Your task to perform on an android device: Do I have any events this weekend? Image 0: 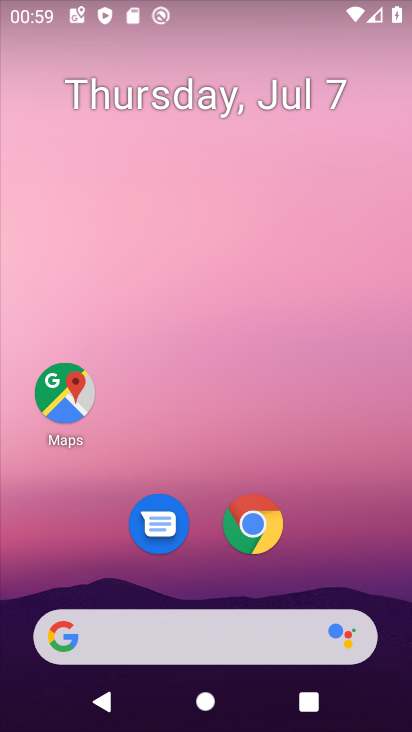
Step 0: drag from (262, 493) to (340, 37)
Your task to perform on an android device: Do I have any events this weekend? Image 1: 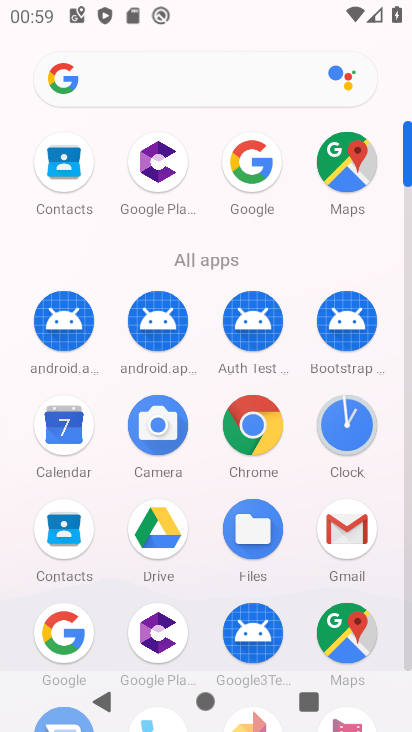
Step 1: click (56, 443)
Your task to perform on an android device: Do I have any events this weekend? Image 2: 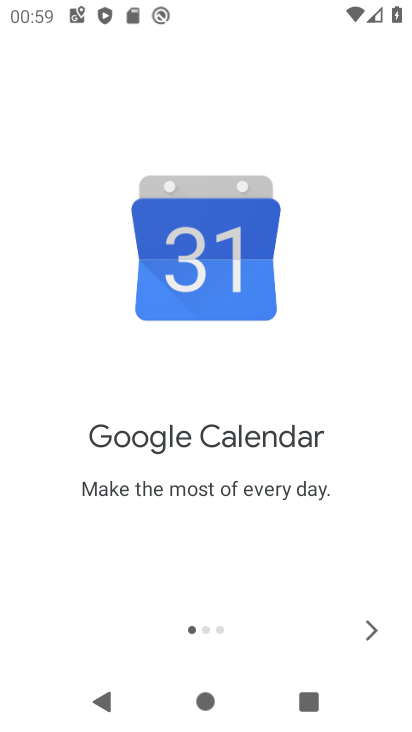
Step 2: click (363, 631)
Your task to perform on an android device: Do I have any events this weekend? Image 3: 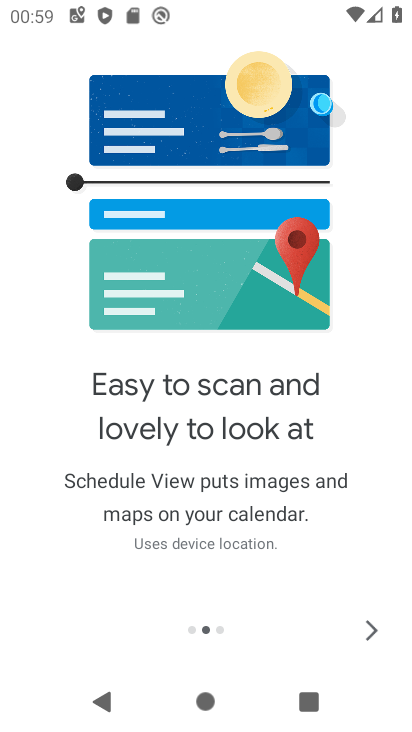
Step 3: click (363, 632)
Your task to perform on an android device: Do I have any events this weekend? Image 4: 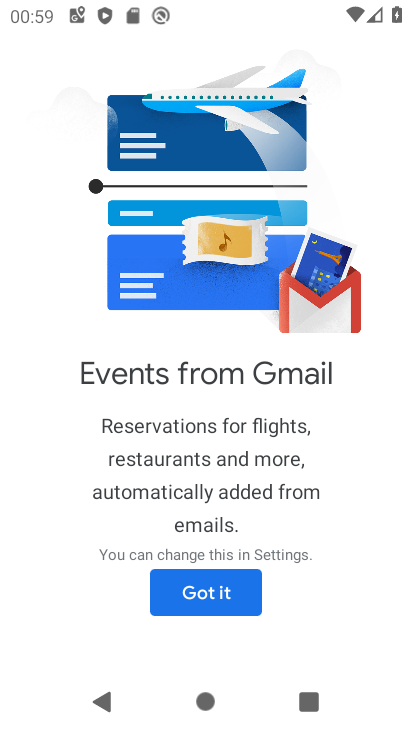
Step 4: click (249, 602)
Your task to perform on an android device: Do I have any events this weekend? Image 5: 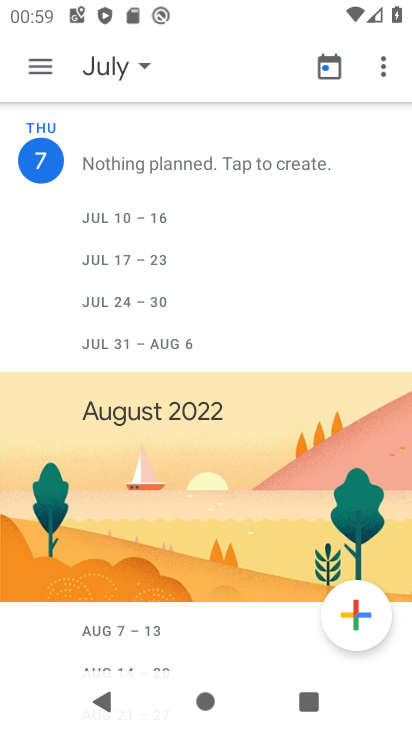
Step 5: click (38, 58)
Your task to perform on an android device: Do I have any events this weekend? Image 6: 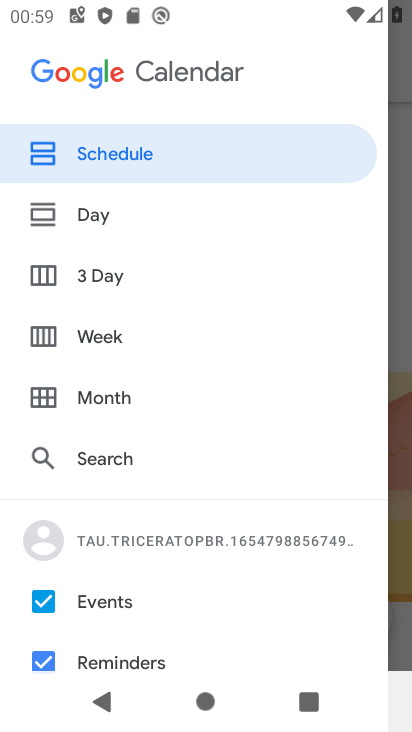
Step 6: click (92, 330)
Your task to perform on an android device: Do I have any events this weekend? Image 7: 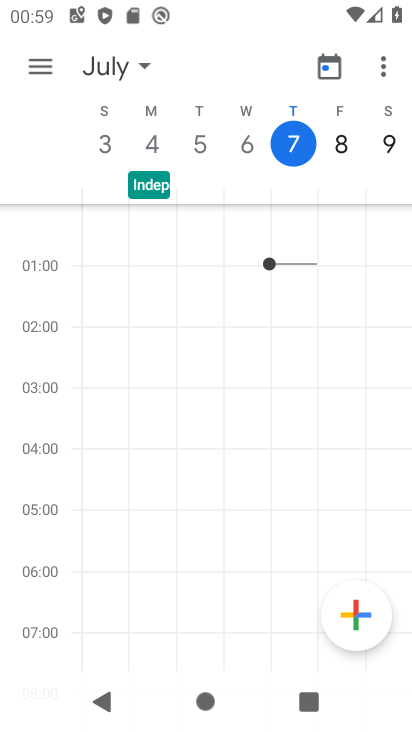
Step 7: click (387, 115)
Your task to perform on an android device: Do I have any events this weekend? Image 8: 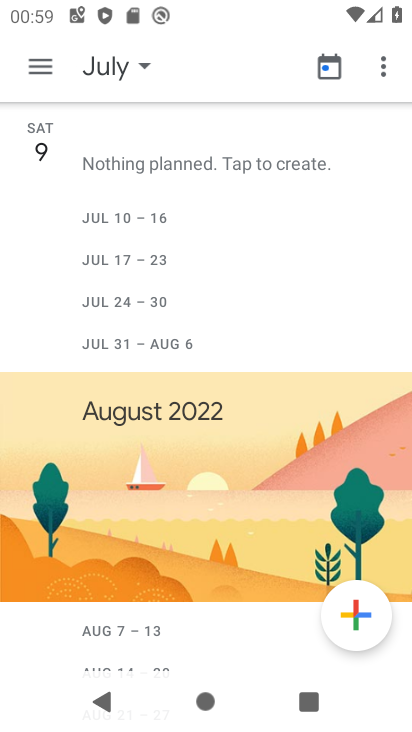
Step 8: task complete